Your task to perform on an android device: create a new album in the google photos Image 0: 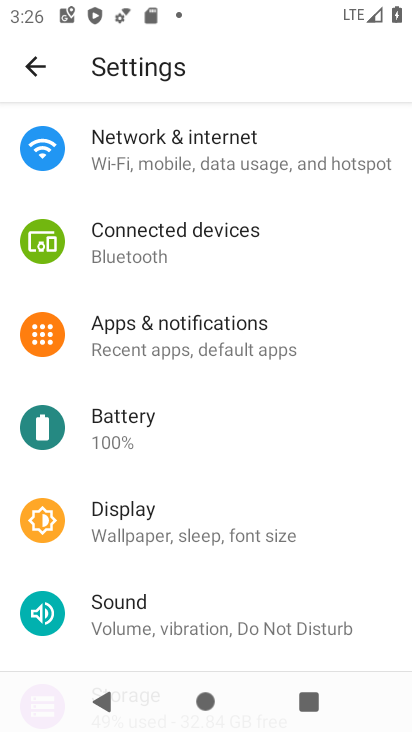
Step 0: press home button
Your task to perform on an android device: create a new album in the google photos Image 1: 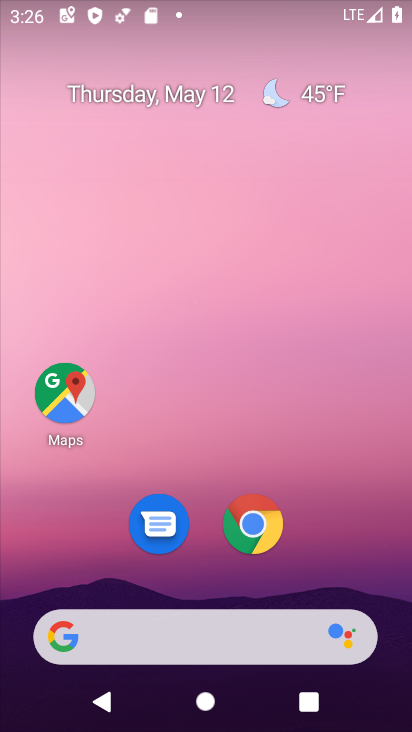
Step 1: drag from (323, 546) to (292, 24)
Your task to perform on an android device: create a new album in the google photos Image 2: 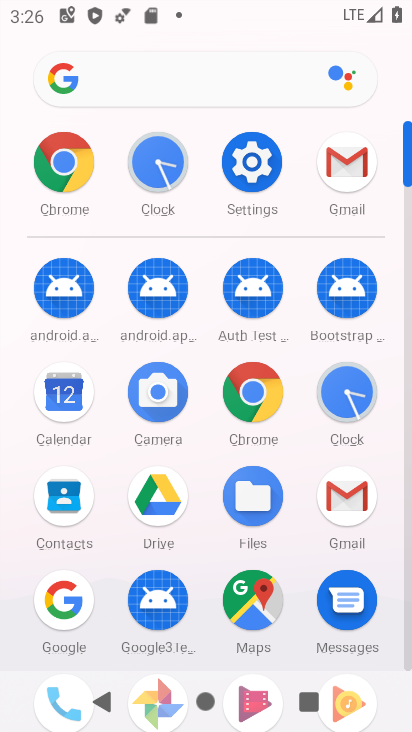
Step 2: drag from (193, 514) to (218, 209)
Your task to perform on an android device: create a new album in the google photos Image 3: 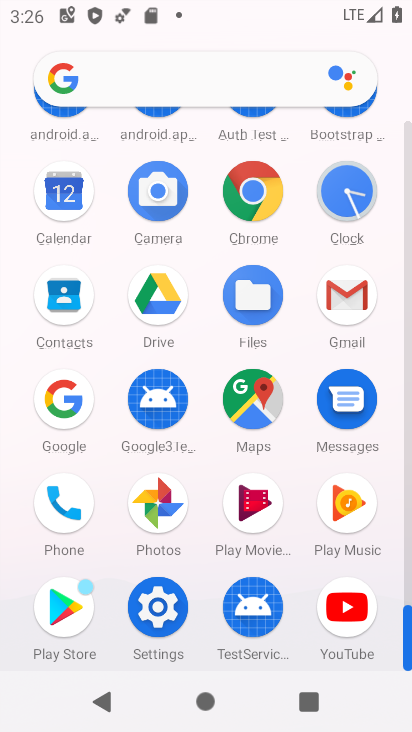
Step 3: click (172, 502)
Your task to perform on an android device: create a new album in the google photos Image 4: 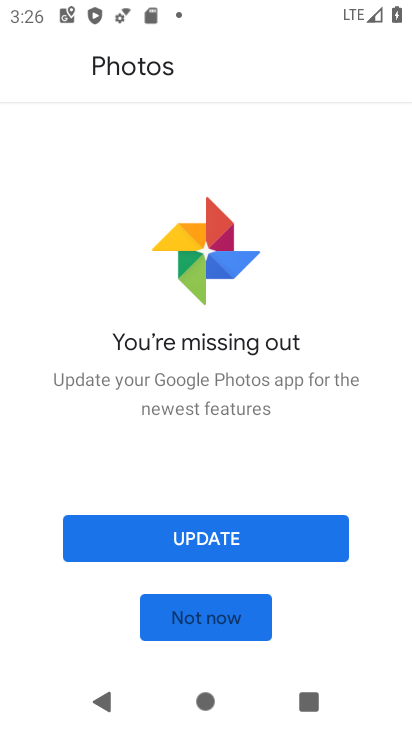
Step 4: click (198, 611)
Your task to perform on an android device: create a new album in the google photos Image 5: 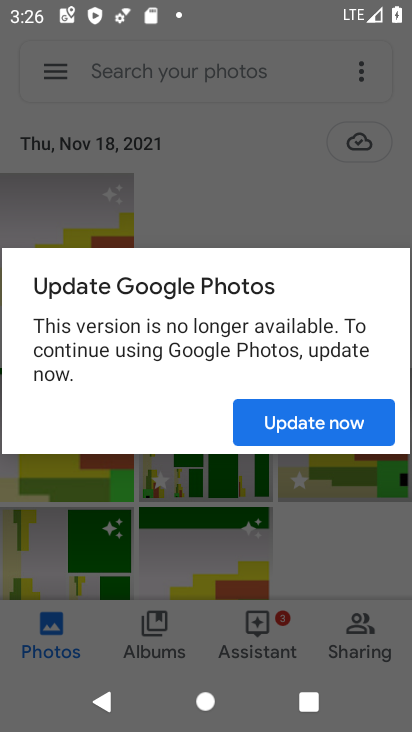
Step 5: click (309, 424)
Your task to perform on an android device: create a new album in the google photos Image 6: 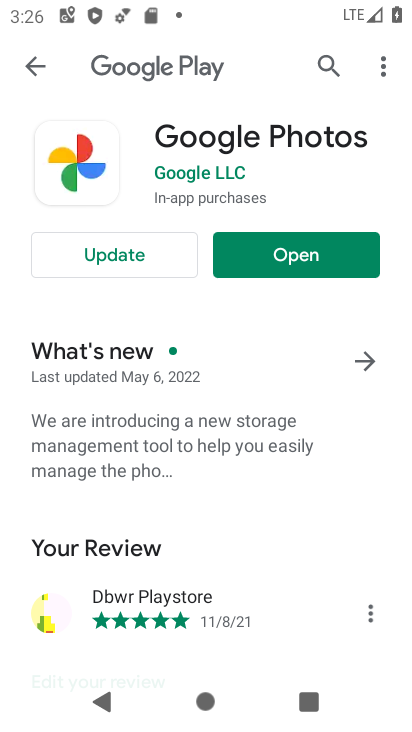
Step 6: click (302, 253)
Your task to perform on an android device: create a new album in the google photos Image 7: 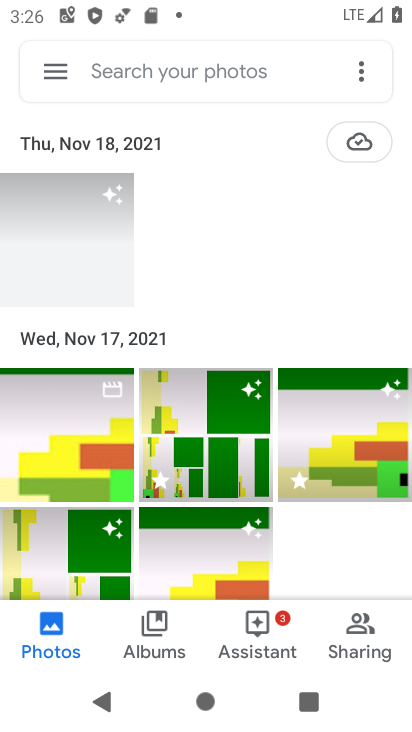
Step 7: click (153, 609)
Your task to perform on an android device: create a new album in the google photos Image 8: 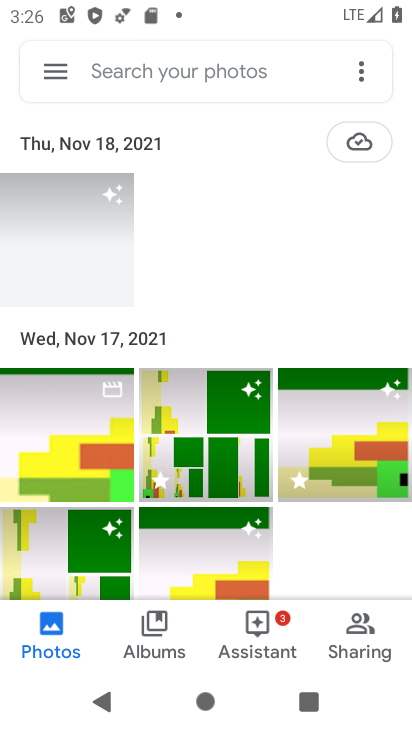
Step 8: click (154, 625)
Your task to perform on an android device: create a new album in the google photos Image 9: 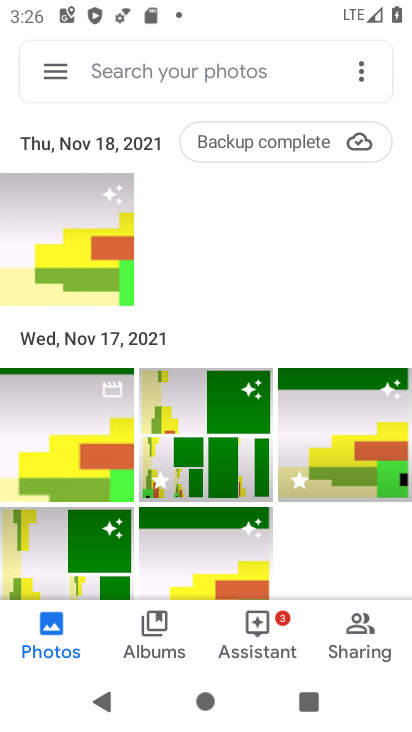
Step 9: click (157, 624)
Your task to perform on an android device: create a new album in the google photos Image 10: 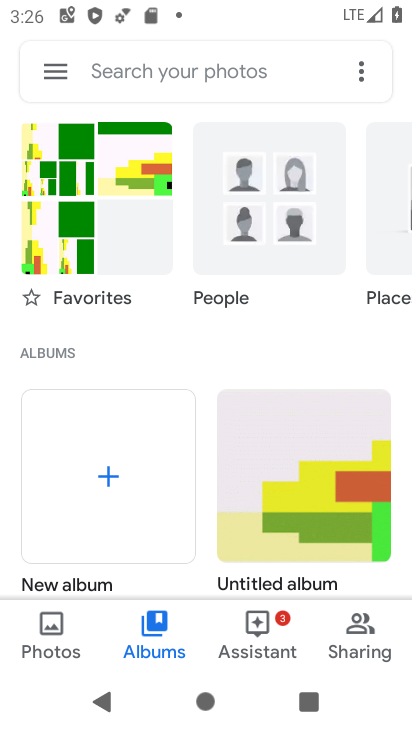
Step 10: click (113, 470)
Your task to perform on an android device: create a new album in the google photos Image 11: 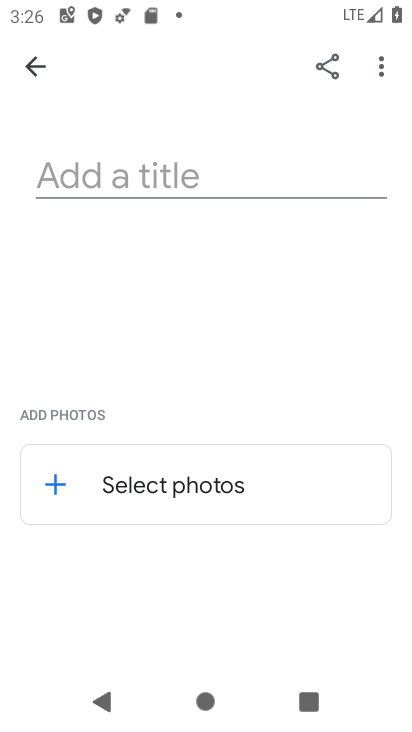
Step 11: click (206, 168)
Your task to perform on an android device: create a new album in the google photos Image 12: 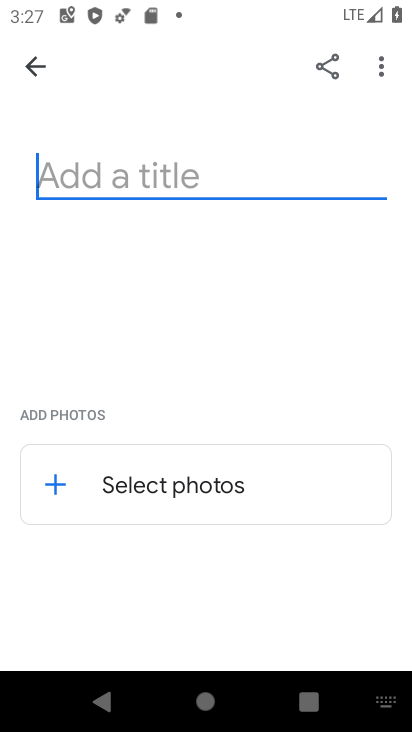
Step 12: type "Indraprasth "
Your task to perform on an android device: create a new album in the google photos Image 13: 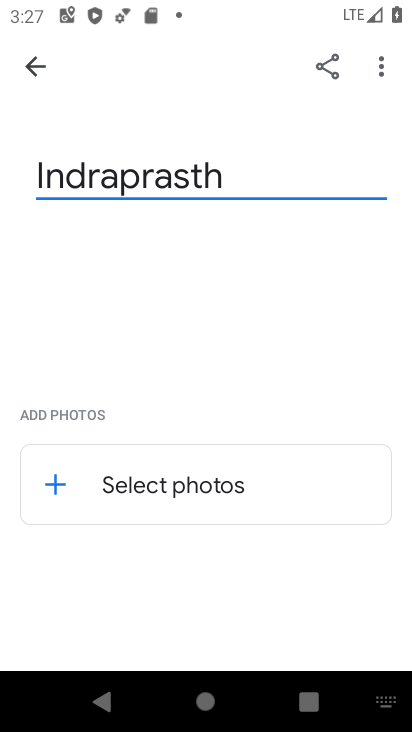
Step 13: click (258, 477)
Your task to perform on an android device: create a new album in the google photos Image 14: 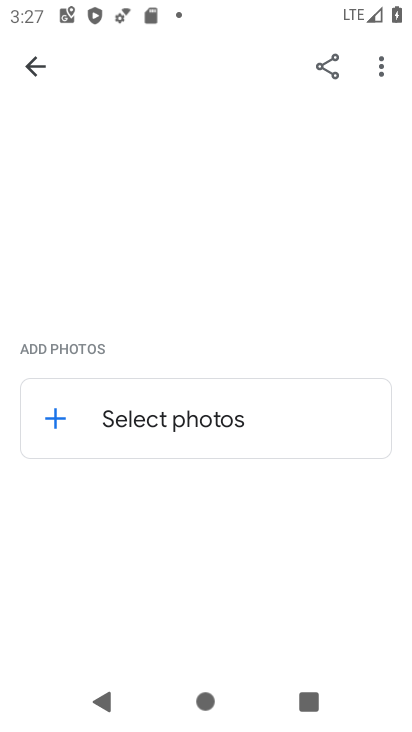
Step 14: click (61, 409)
Your task to perform on an android device: create a new album in the google photos Image 15: 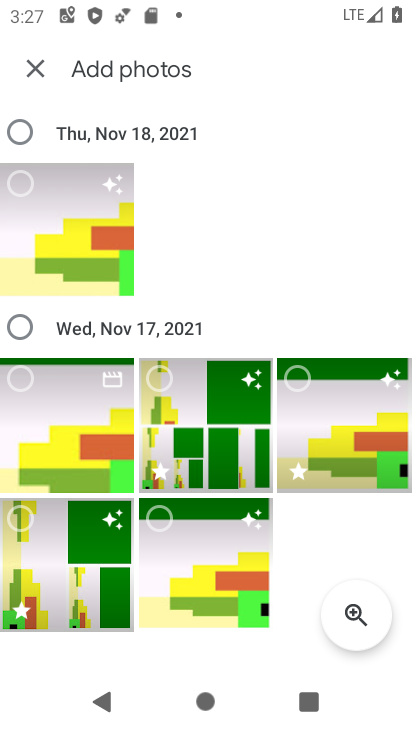
Step 15: click (15, 367)
Your task to perform on an android device: create a new album in the google photos Image 16: 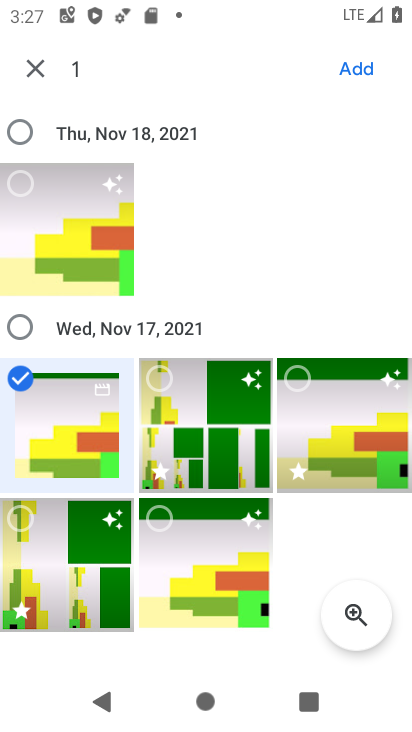
Step 16: click (350, 62)
Your task to perform on an android device: create a new album in the google photos Image 17: 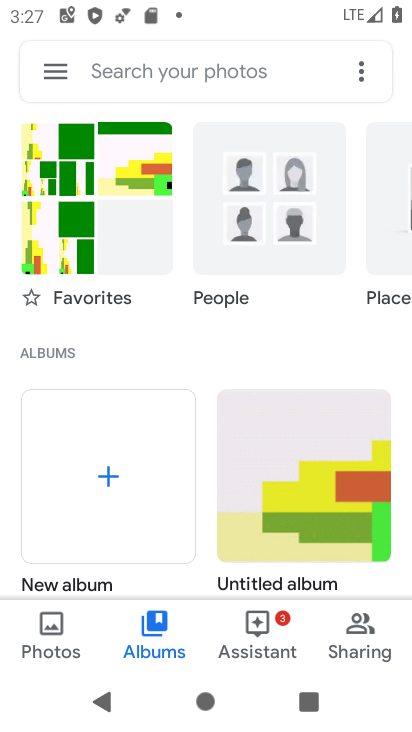
Step 17: task complete